Your task to perform on an android device: Go to Android settings Image 0: 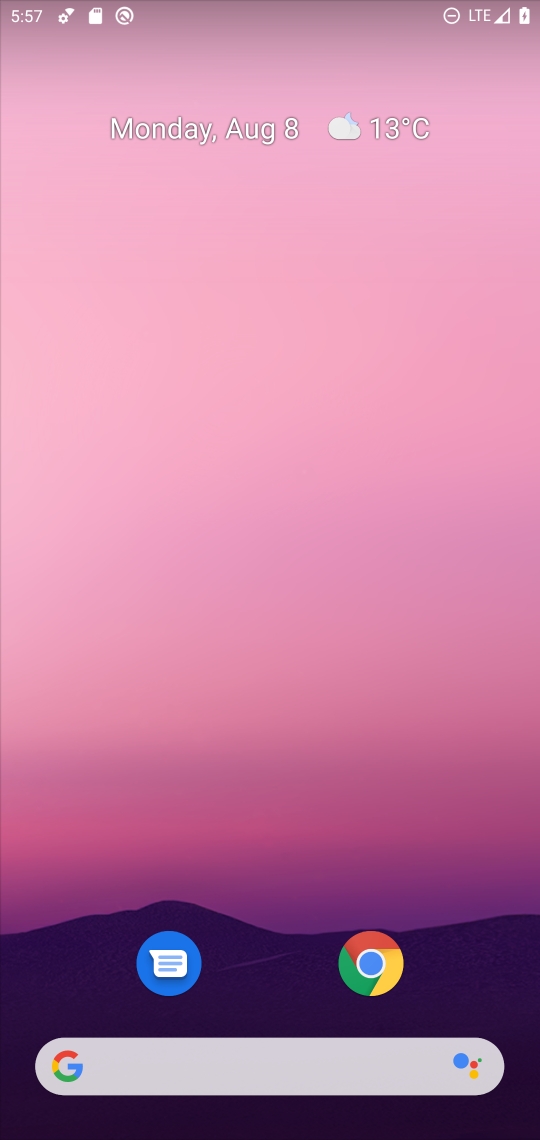
Step 0: press home button
Your task to perform on an android device: Go to Android settings Image 1: 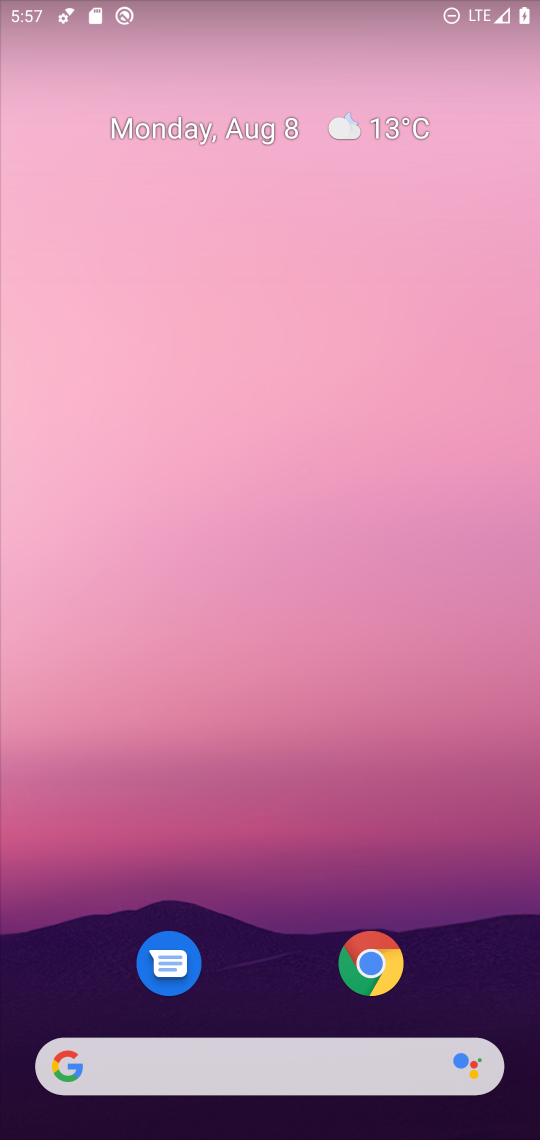
Step 1: drag from (260, 777) to (260, 90)
Your task to perform on an android device: Go to Android settings Image 2: 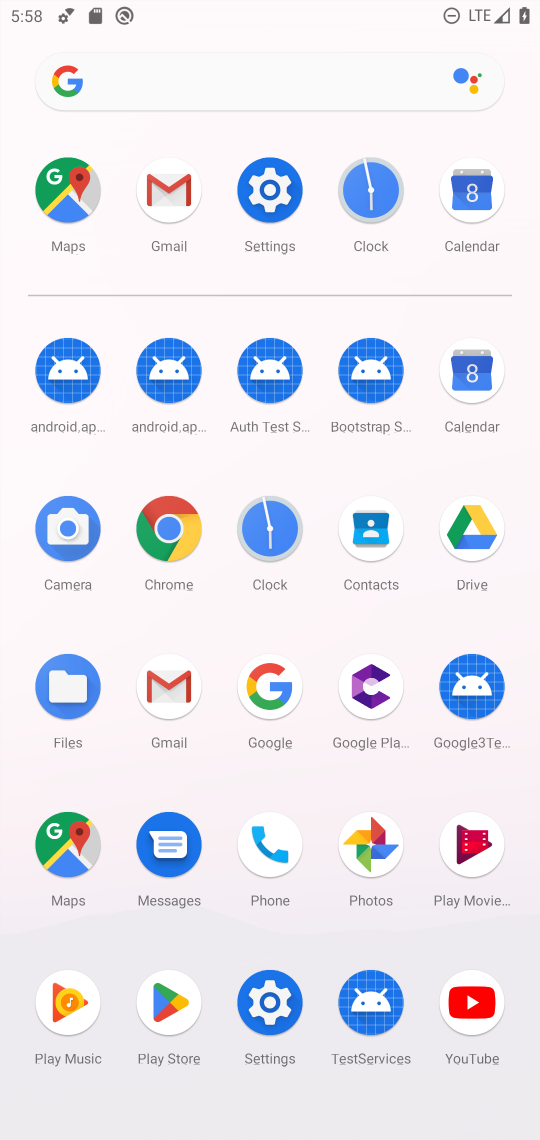
Step 2: click (281, 182)
Your task to perform on an android device: Go to Android settings Image 3: 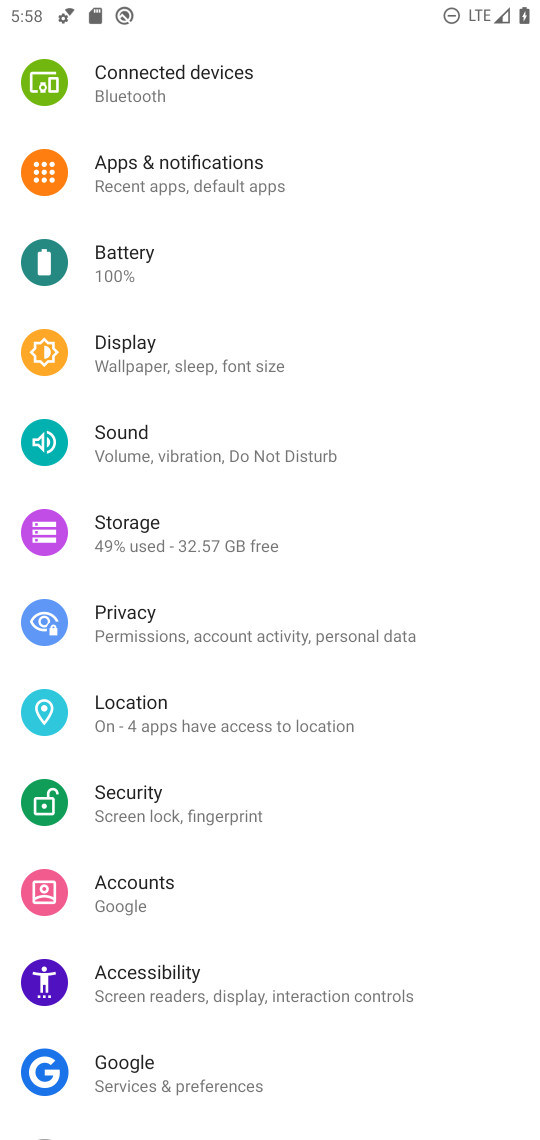
Step 3: drag from (87, 992) to (158, 103)
Your task to perform on an android device: Go to Android settings Image 4: 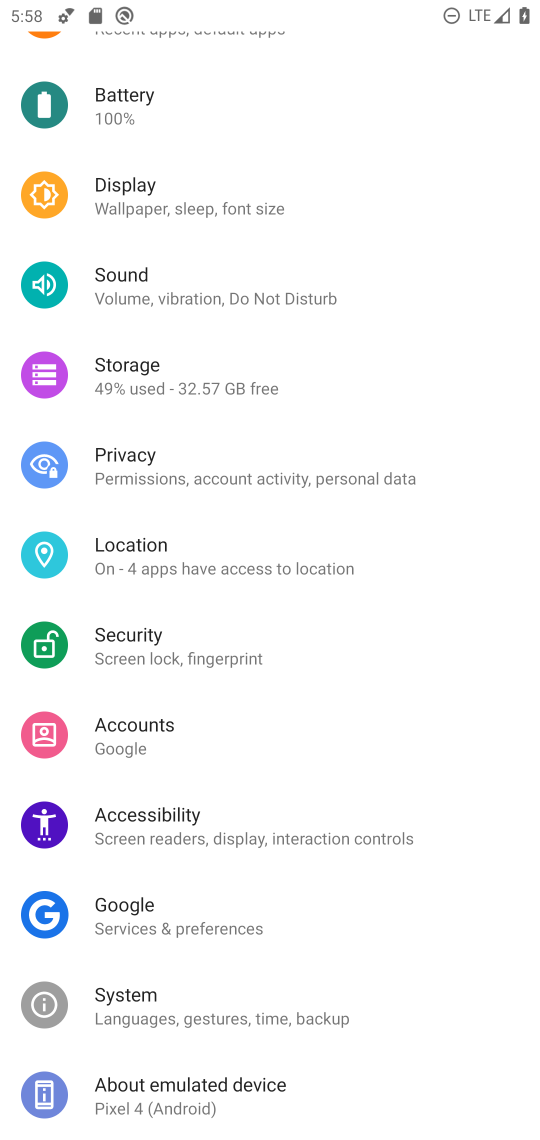
Step 4: click (122, 1014)
Your task to perform on an android device: Go to Android settings Image 5: 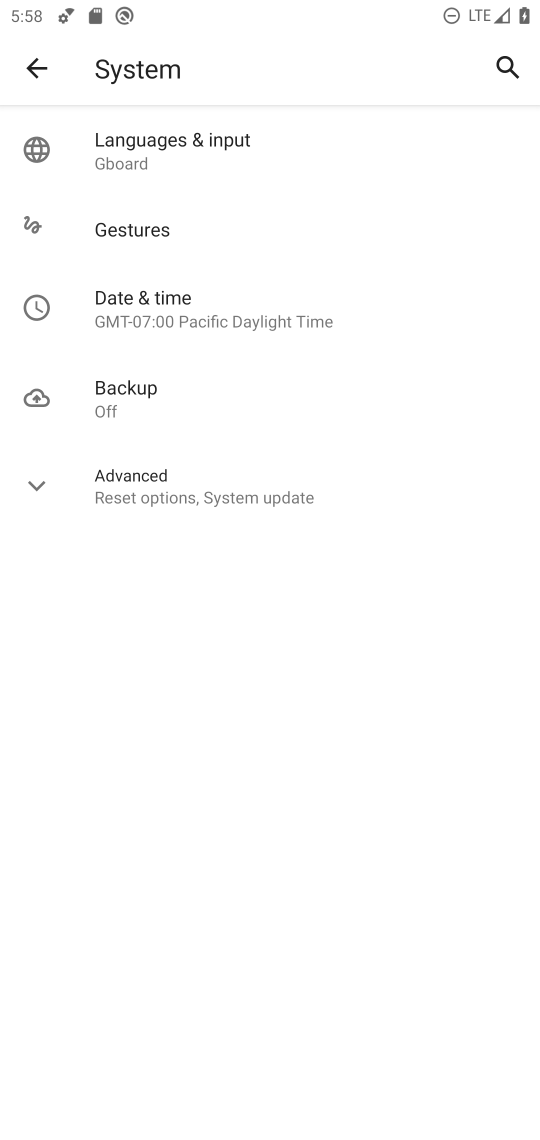
Step 5: task complete